Your task to perform on an android device: Show me recent news Image 0: 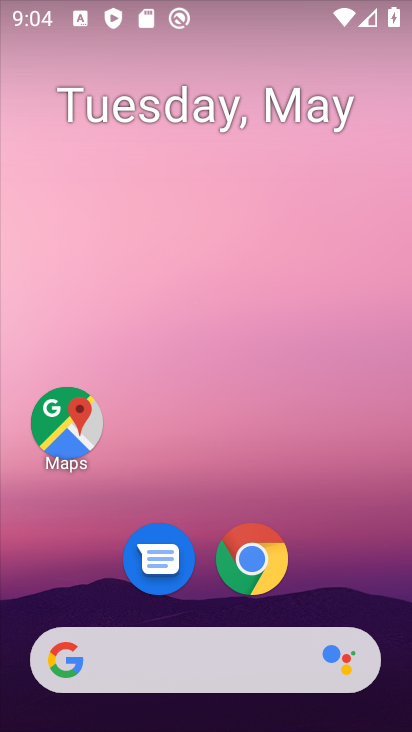
Step 0: drag from (276, 610) to (345, 88)
Your task to perform on an android device: Show me recent news Image 1: 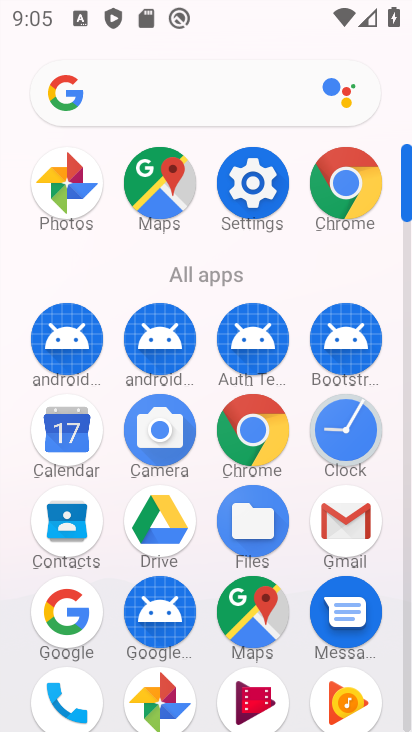
Step 1: click (80, 632)
Your task to perform on an android device: Show me recent news Image 2: 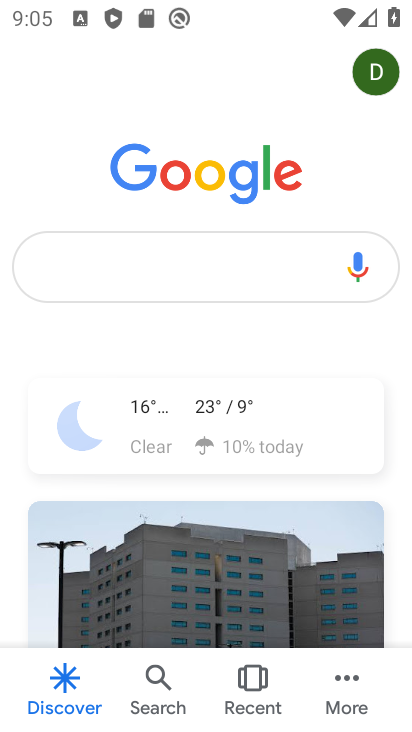
Step 2: click (177, 271)
Your task to perform on an android device: Show me recent news Image 3: 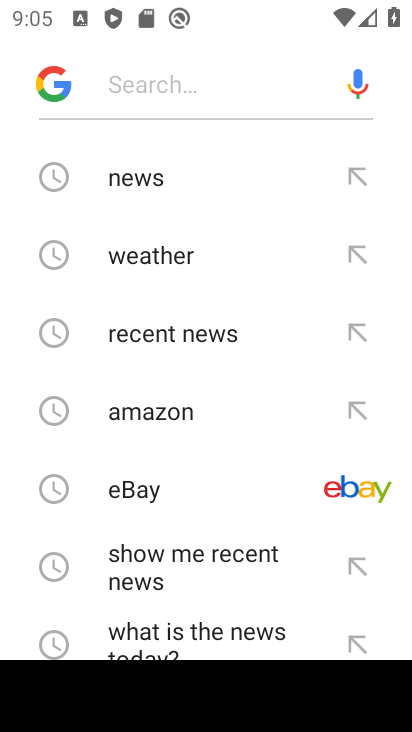
Step 3: click (180, 339)
Your task to perform on an android device: Show me recent news Image 4: 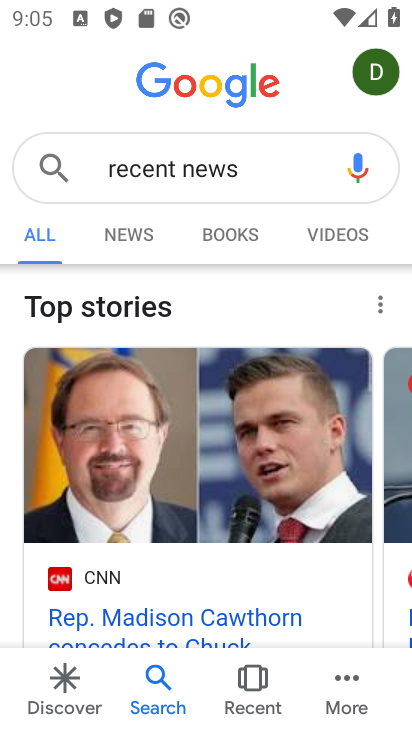
Step 4: click (108, 244)
Your task to perform on an android device: Show me recent news Image 5: 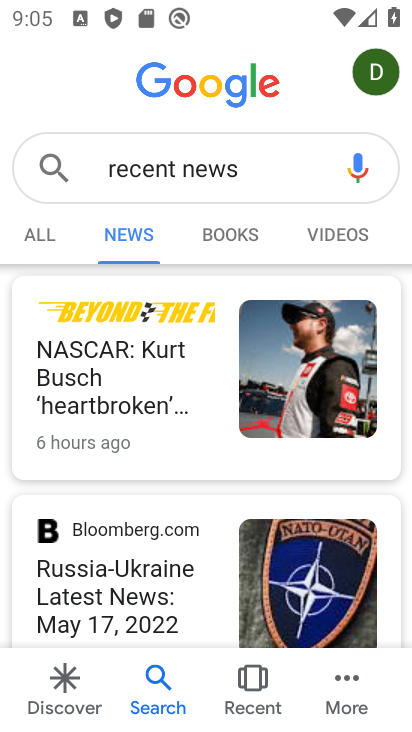
Step 5: task complete